Your task to perform on an android device: turn on notifications settings in the gmail app Image 0: 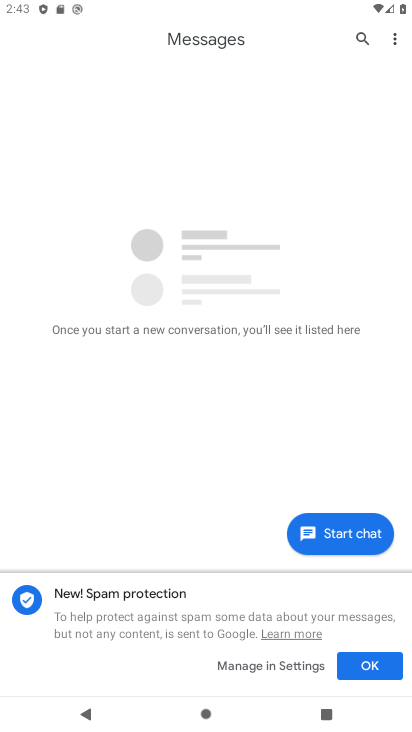
Step 0: press back button
Your task to perform on an android device: turn on notifications settings in the gmail app Image 1: 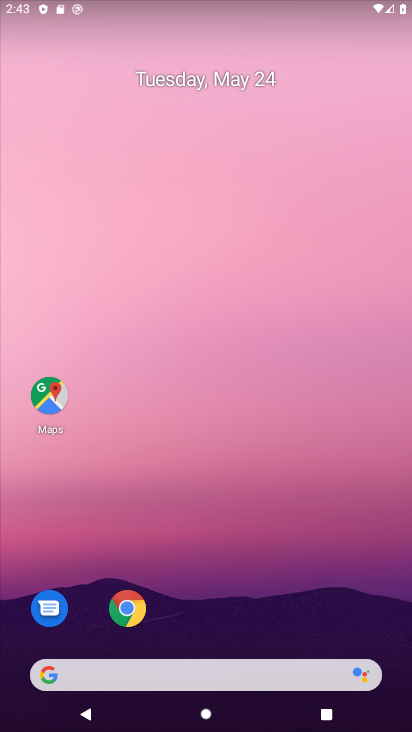
Step 1: drag from (217, 565) to (214, 128)
Your task to perform on an android device: turn on notifications settings in the gmail app Image 2: 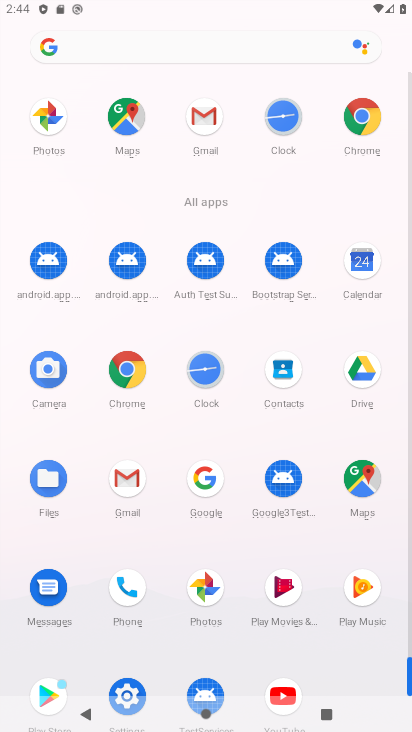
Step 2: drag from (3, 592) to (21, 245)
Your task to perform on an android device: turn on notifications settings in the gmail app Image 3: 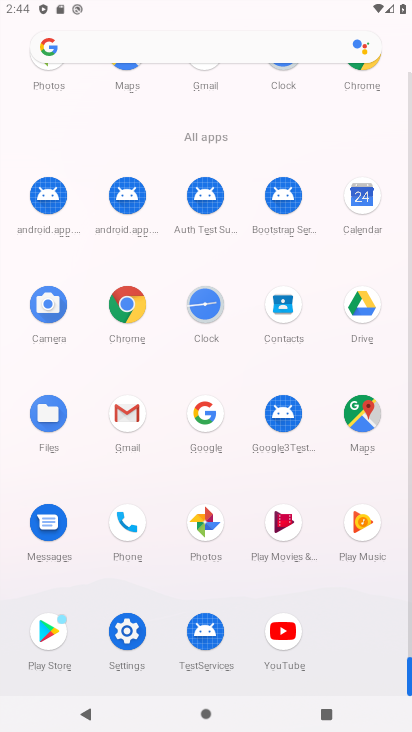
Step 3: click (124, 630)
Your task to perform on an android device: turn on notifications settings in the gmail app Image 4: 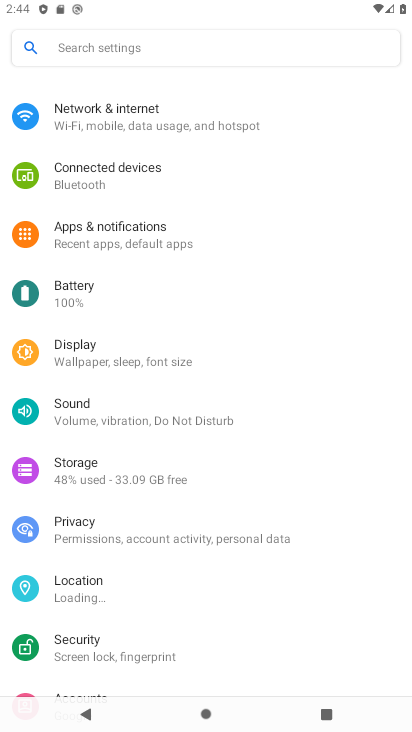
Step 4: press back button
Your task to perform on an android device: turn on notifications settings in the gmail app Image 5: 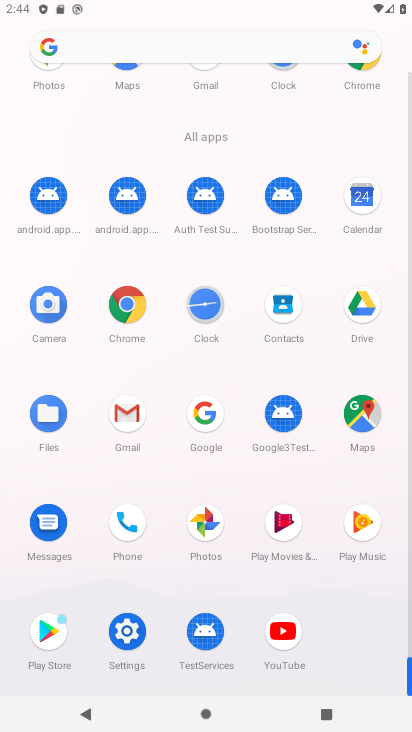
Step 5: click (124, 406)
Your task to perform on an android device: turn on notifications settings in the gmail app Image 6: 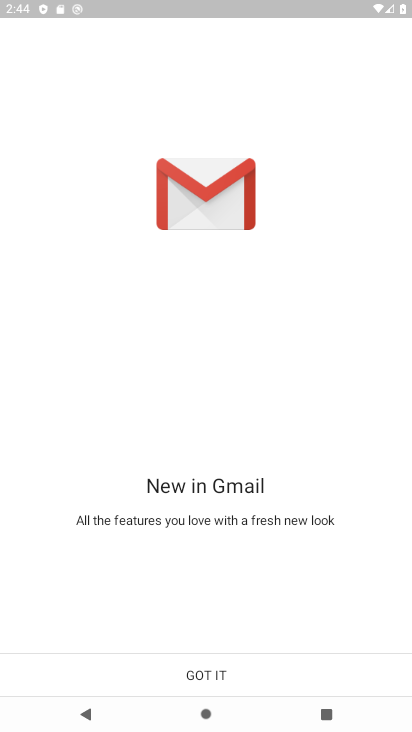
Step 6: click (202, 671)
Your task to perform on an android device: turn on notifications settings in the gmail app Image 7: 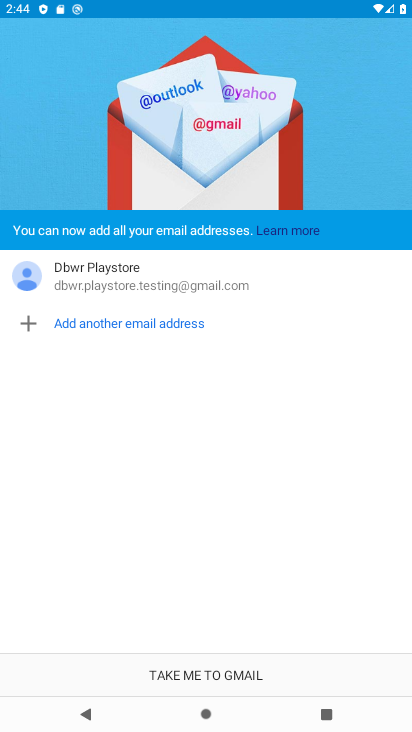
Step 7: click (231, 672)
Your task to perform on an android device: turn on notifications settings in the gmail app Image 8: 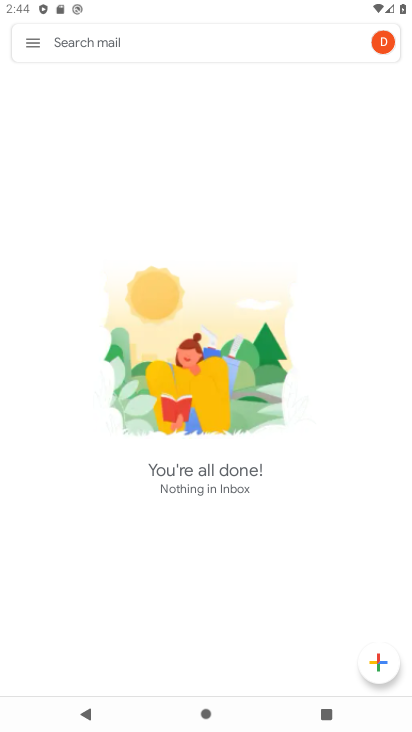
Step 8: click (28, 39)
Your task to perform on an android device: turn on notifications settings in the gmail app Image 9: 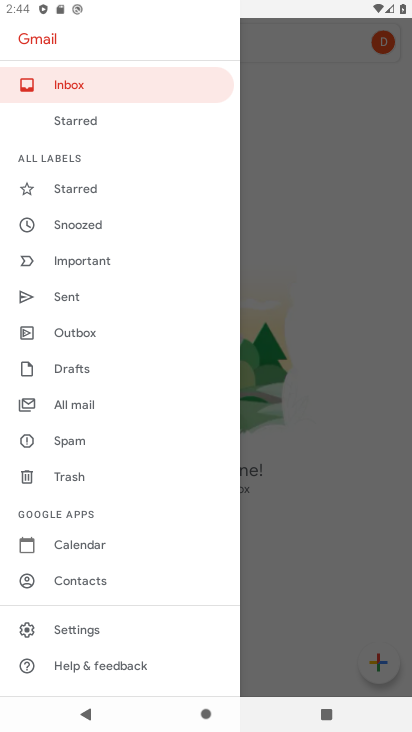
Step 9: drag from (178, 200) to (179, 608)
Your task to perform on an android device: turn on notifications settings in the gmail app Image 10: 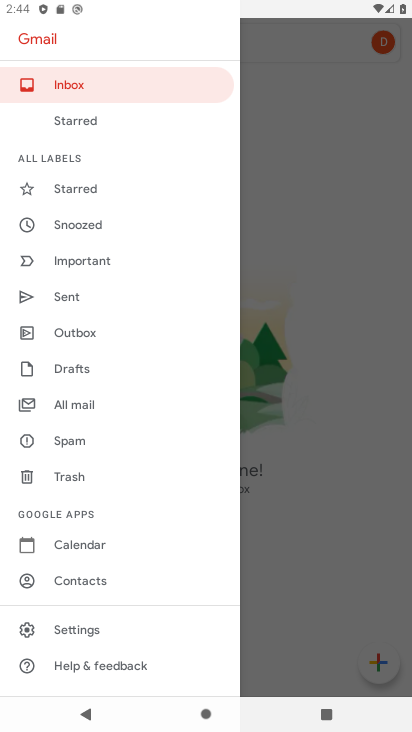
Step 10: click (86, 626)
Your task to perform on an android device: turn on notifications settings in the gmail app Image 11: 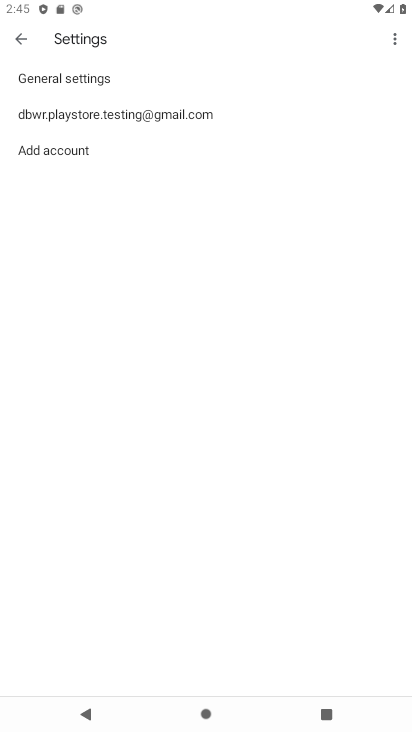
Step 11: click (148, 114)
Your task to perform on an android device: turn on notifications settings in the gmail app Image 12: 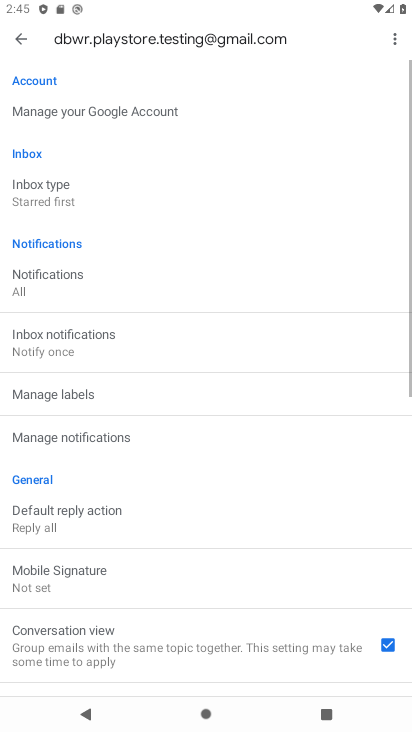
Step 12: drag from (248, 205) to (250, 665)
Your task to perform on an android device: turn on notifications settings in the gmail app Image 13: 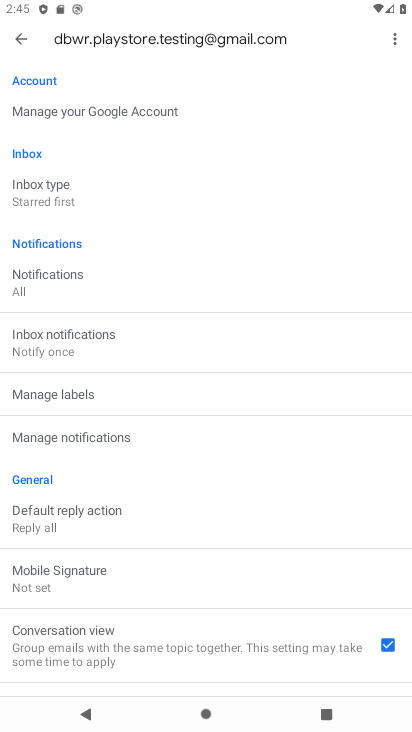
Step 13: click (102, 430)
Your task to perform on an android device: turn on notifications settings in the gmail app Image 14: 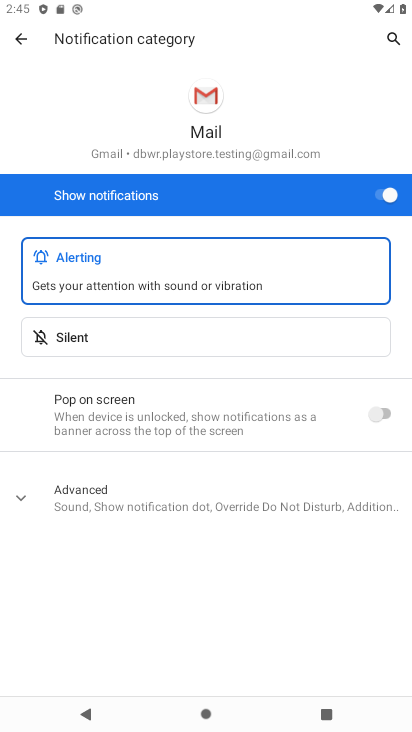
Step 14: task complete